Your task to perform on an android device: turn on sleep mode Image 0: 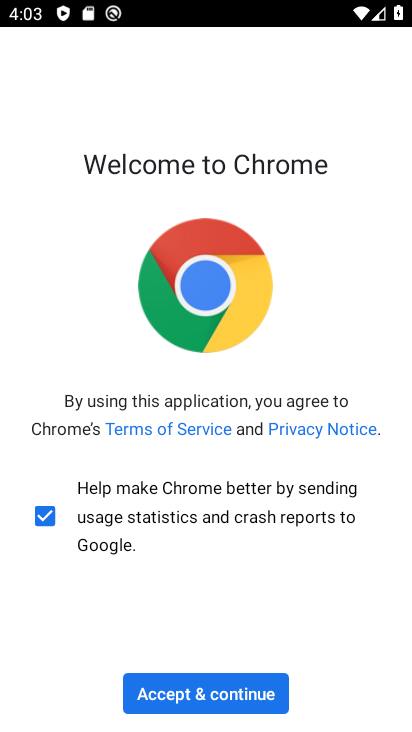
Step 0: press home button
Your task to perform on an android device: turn on sleep mode Image 1: 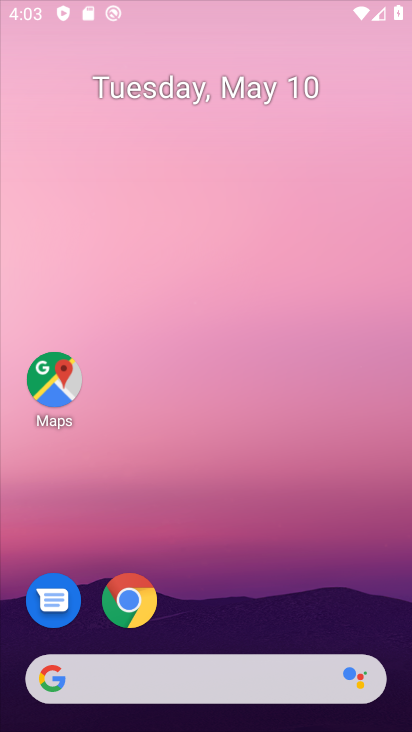
Step 1: drag from (247, 619) to (301, 63)
Your task to perform on an android device: turn on sleep mode Image 2: 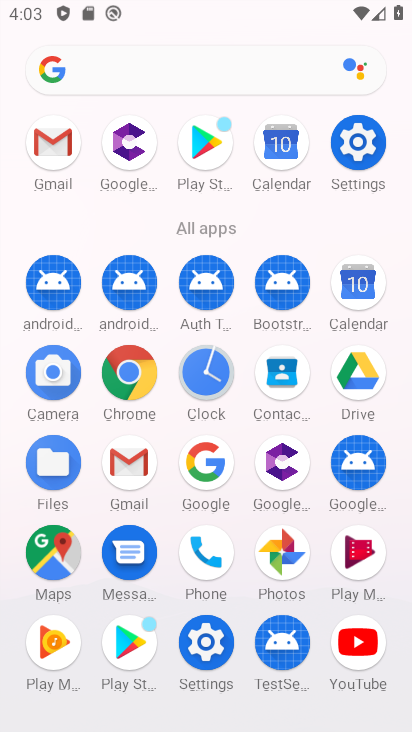
Step 2: click (373, 149)
Your task to perform on an android device: turn on sleep mode Image 3: 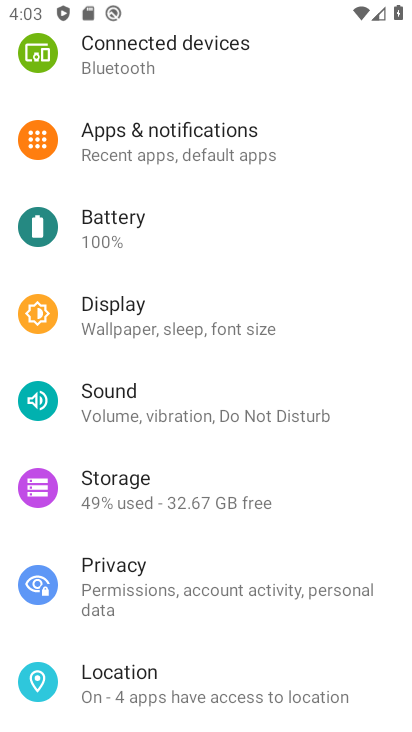
Step 3: click (197, 332)
Your task to perform on an android device: turn on sleep mode Image 4: 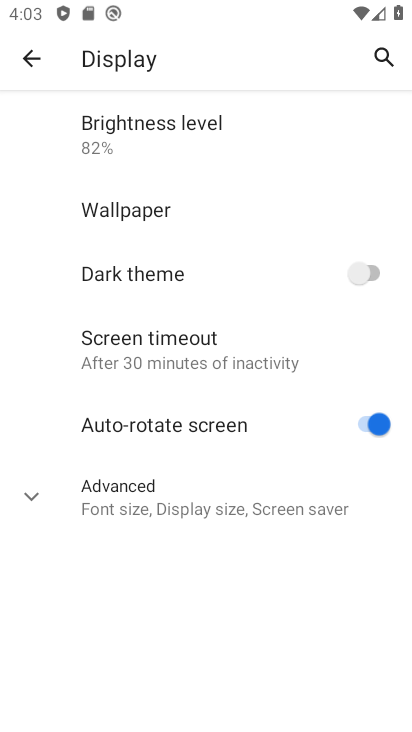
Step 4: click (40, 499)
Your task to perform on an android device: turn on sleep mode Image 5: 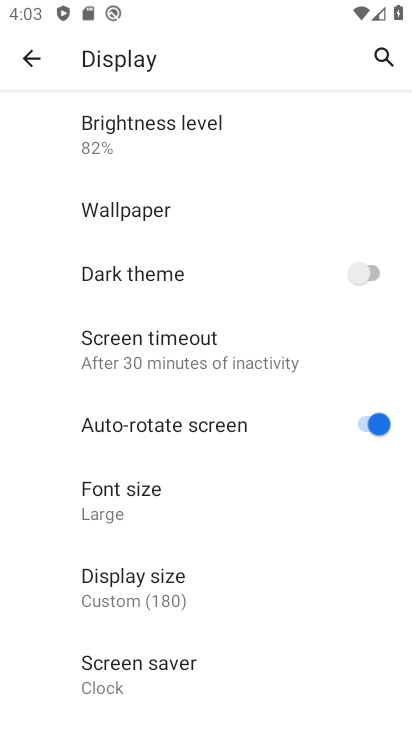
Step 5: task complete